Your task to perform on an android device: turn on airplane mode Image 0: 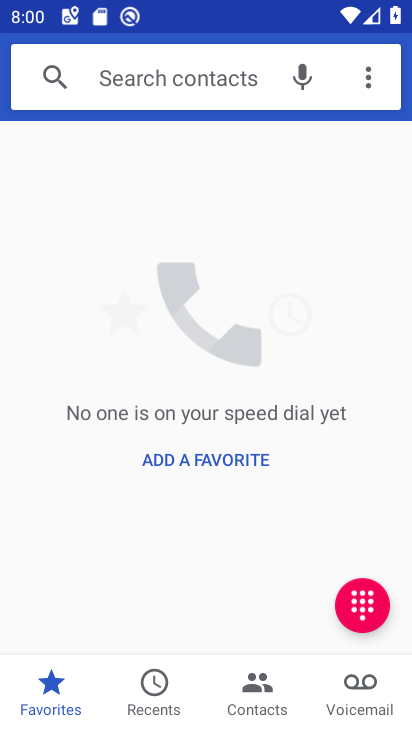
Step 0: press home button
Your task to perform on an android device: turn on airplane mode Image 1: 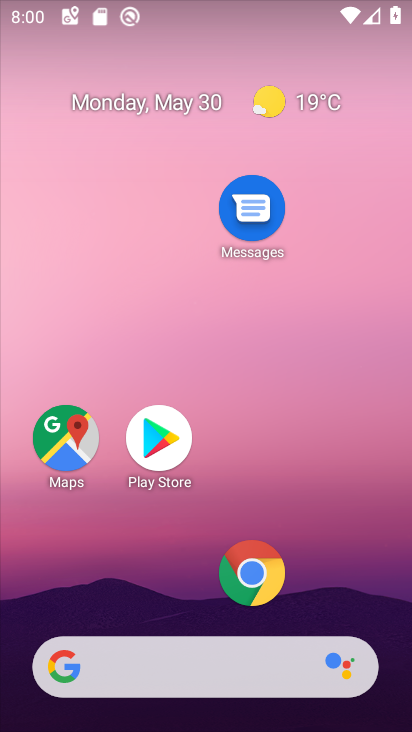
Step 1: drag from (188, 614) to (169, 189)
Your task to perform on an android device: turn on airplane mode Image 2: 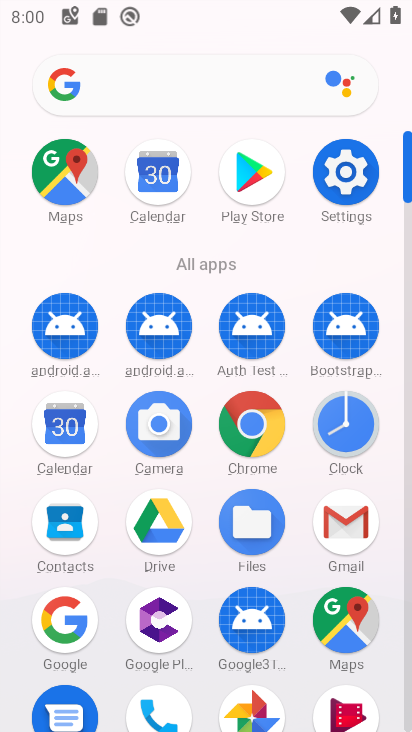
Step 2: click (352, 197)
Your task to perform on an android device: turn on airplane mode Image 3: 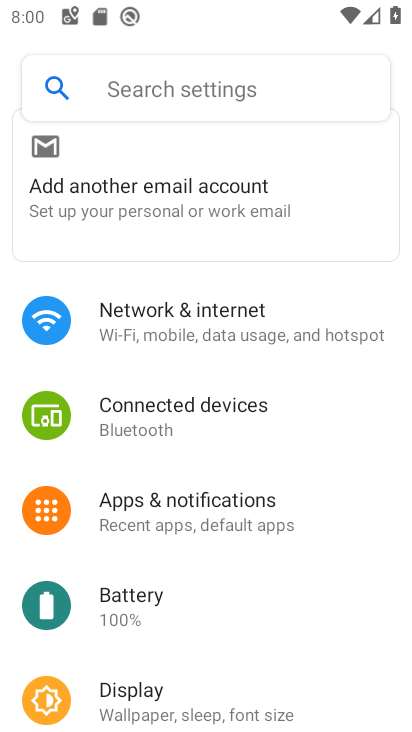
Step 3: click (194, 315)
Your task to perform on an android device: turn on airplane mode Image 4: 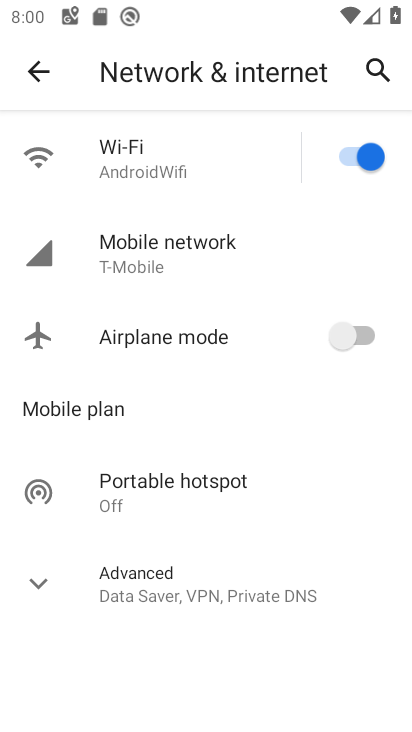
Step 4: click (216, 350)
Your task to perform on an android device: turn on airplane mode Image 5: 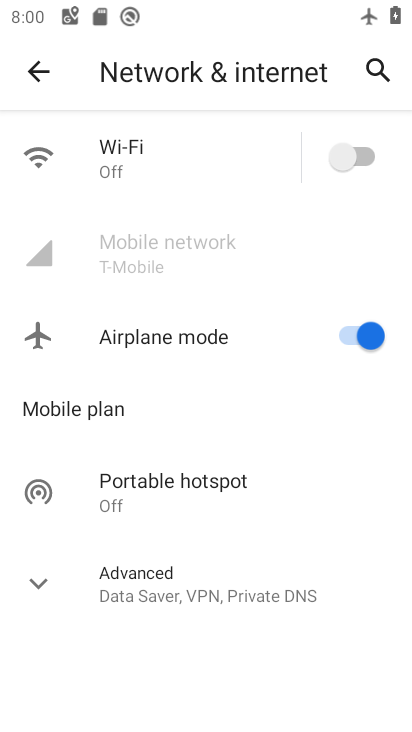
Step 5: task complete